Your task to perform on an android device: turn on wifi Image 0: 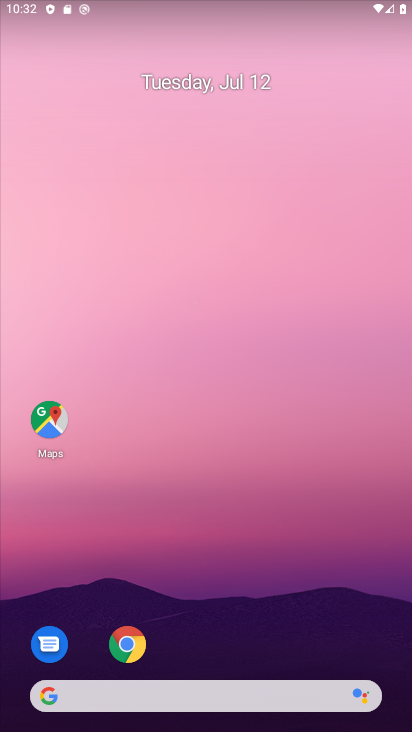
Step 0: drag from (200, 660) to (162, 95)
Your task to perform on an android device: turn on wifi Image 1: 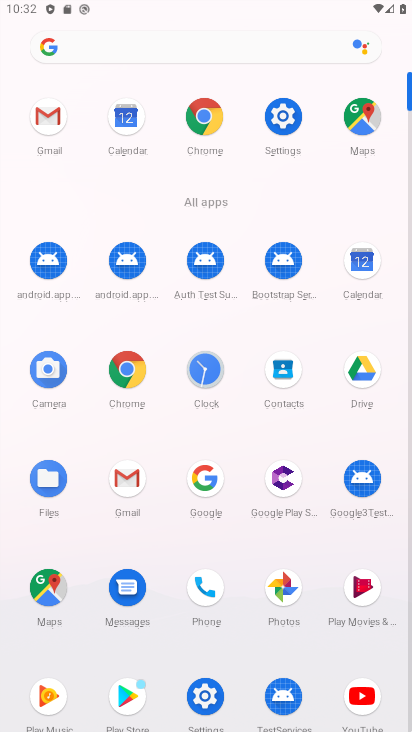
Step 1: click (278, 125)
Your task to perform on an android device: turn on wifi Image 2: 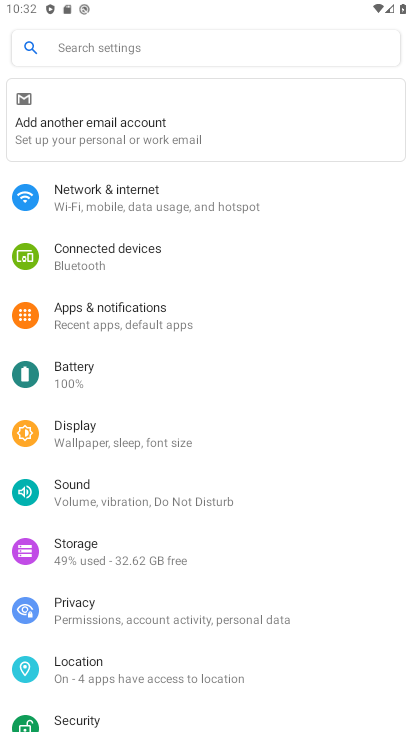
Step 2: click (155, 201)
Your task to perform on an android device: turn on wifi Image 3: 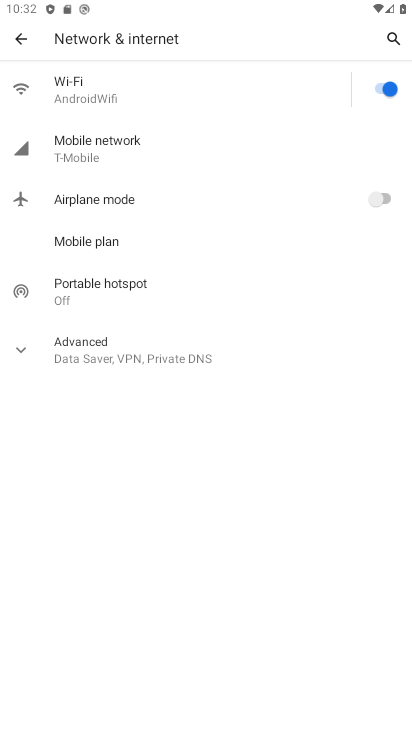
Step 3: task complete